Your task to perform on an android device: Go to accessibility settings Image 0: 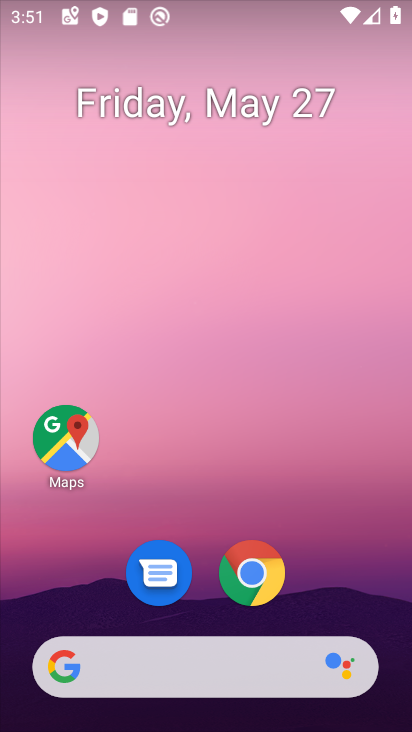
Step 0: drag from (356, 537) to (355, 9)
Your task to perform on an android device: Go to accessibility settings Image 1: 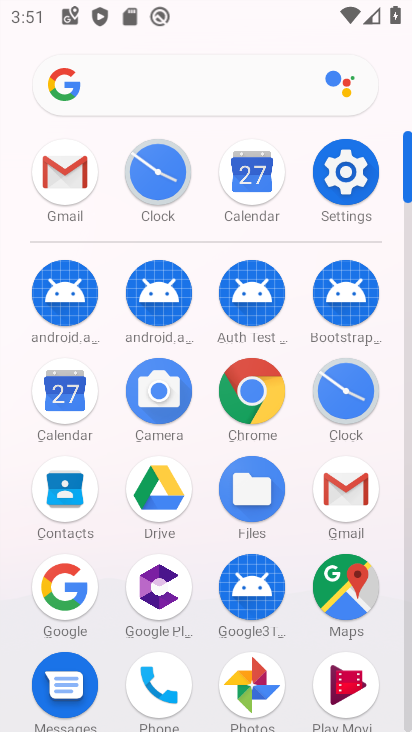
Step 1: click (346, 160)
Your task to perform on an android device: Go to accessibility settings Image 2: 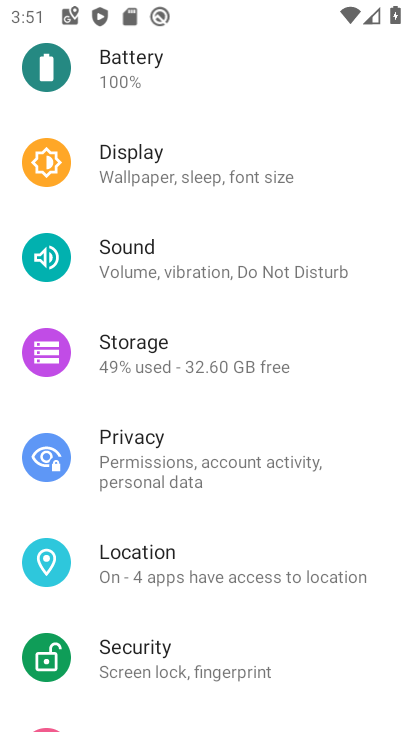
Step 2: drag from (269, 639) to (246, 160)
Your task to perform on an android device: Go to accessibility settings Image 3: 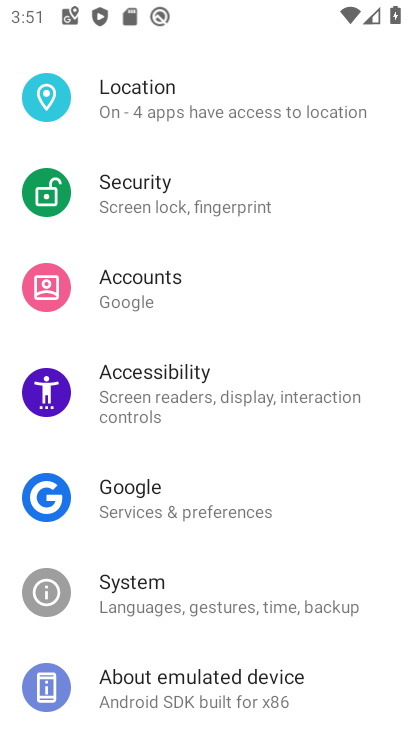
Step 3: click (243, 385)
Your task to perform on an android device: Go to accessibility settings Image 4: 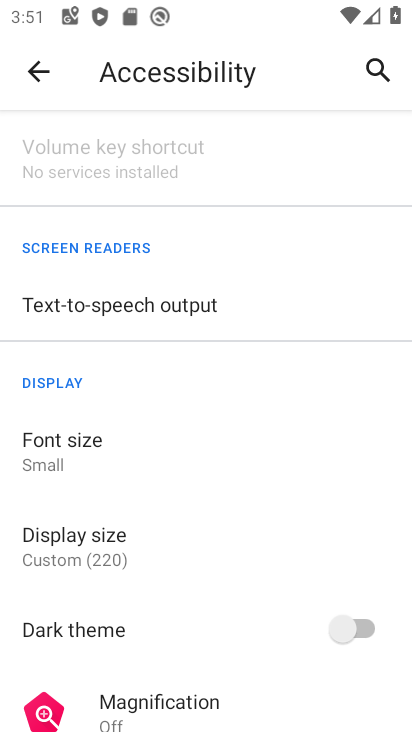
Step 4: task complete